Your task to perform on an android device: change timer sound Image 0: 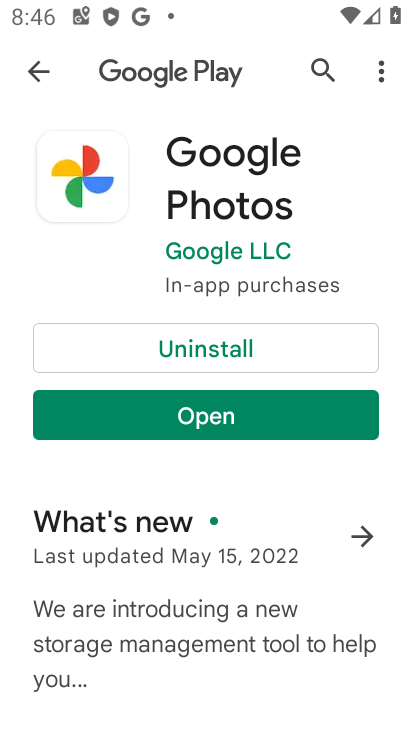
Step 0: click (252, 424)
Your task to perform on an android device: change timer sound Image 1: 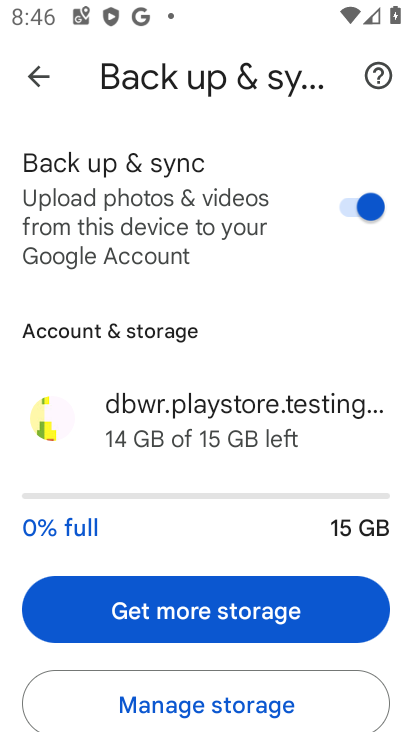
Step 1: press home button
Your task to perform on an android device: change timer sound Image 2: 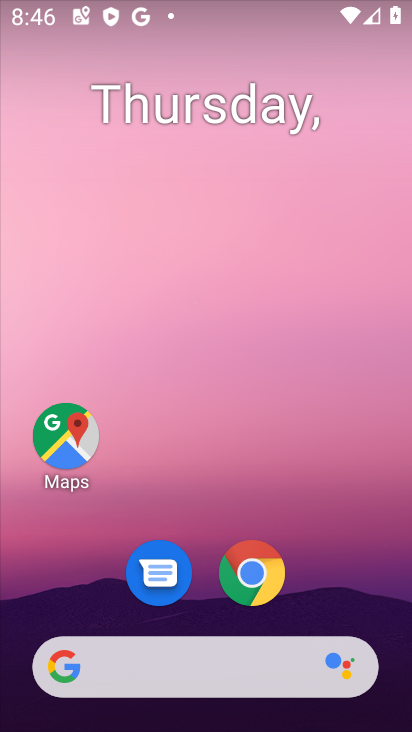
Step 2: drag from (314, 563) to (318, 148)
Your task to perform on an android device: change timer sound Image 3: 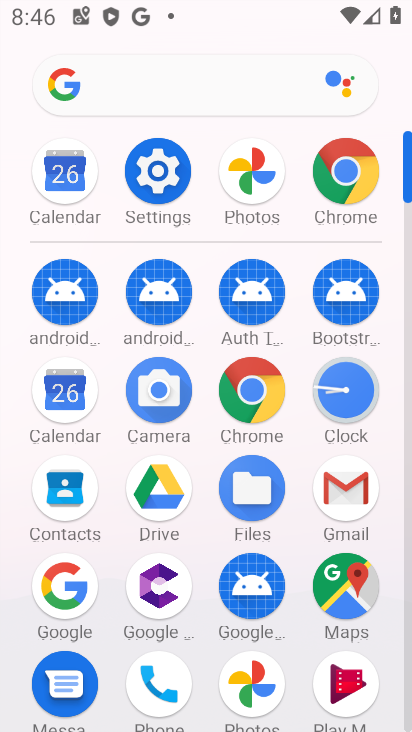
Step 3: click (326, 392)
Your task to perform on an android device: change timer sound Image 4: 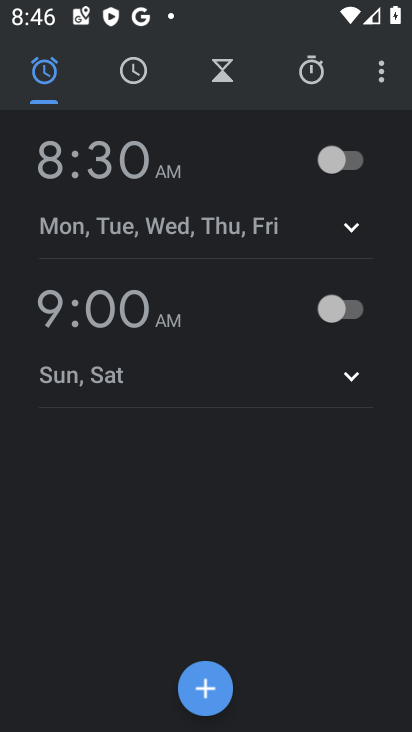
Step 4: drag from (370, 82) to (257, 149)
Your task to perform on an android device: change timer sound Image 5: 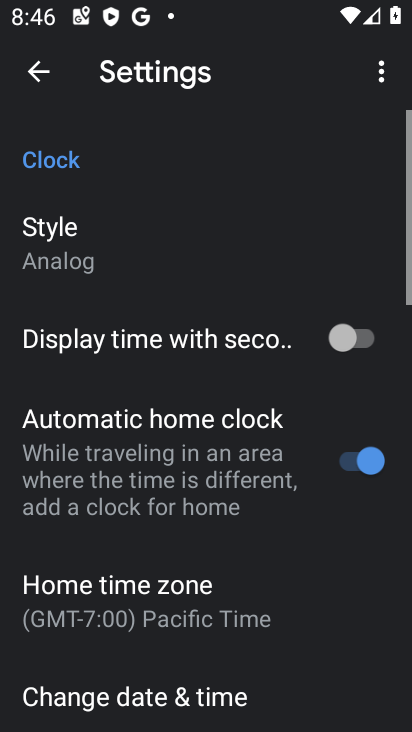
Step 5: drag from (208, 633) to (198, 315)
Your task to perform on an android device: change timer sound Image 6: 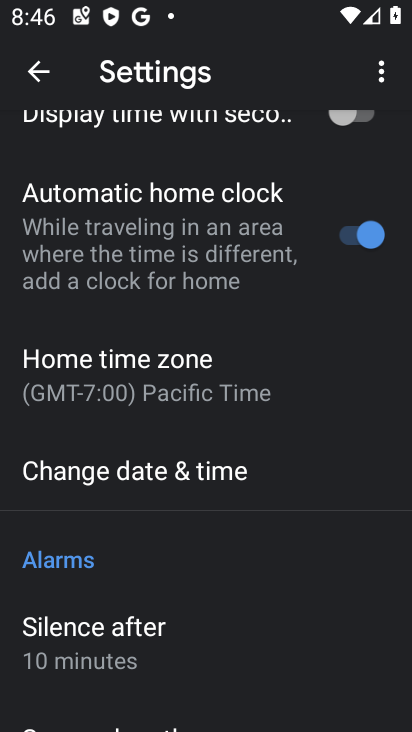
Step 6: drag from (207, 634) to (222, 285)
Your task to perform on an android device: change timer sound Image 7: 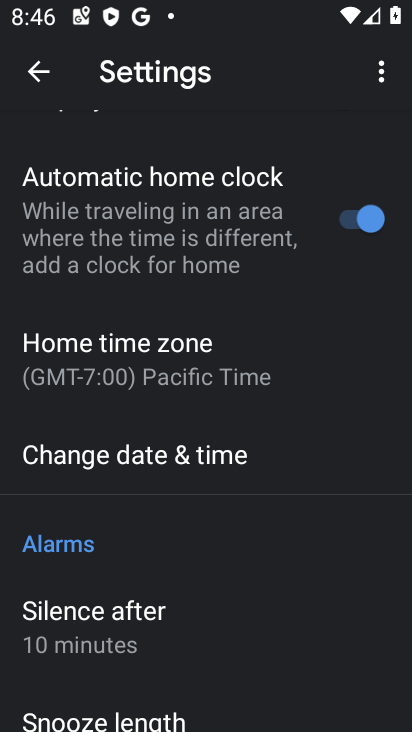
Step 7: drag from (181, 638) to (193, 238)
Your task to perform on an android device: change timer sound Image 8: 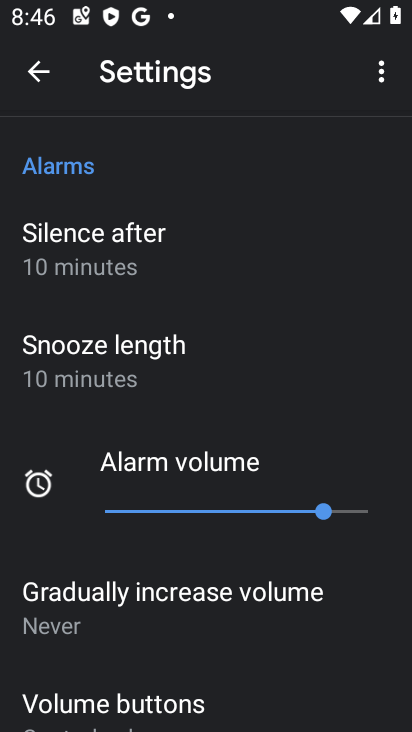
Step 8: drag from (203, 662) to (203, 312)
Your task to perform on an android device: change timer sound Image 9: 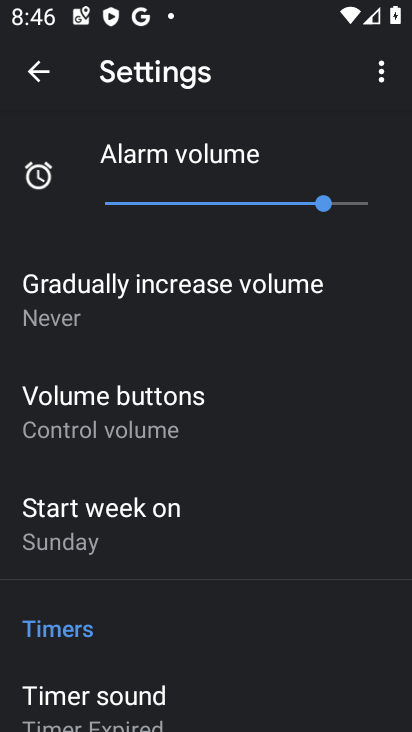
Step 9: drag from (228, 647) to (207, 343)
Your task to perform on an android device: change timer sound Image 10: 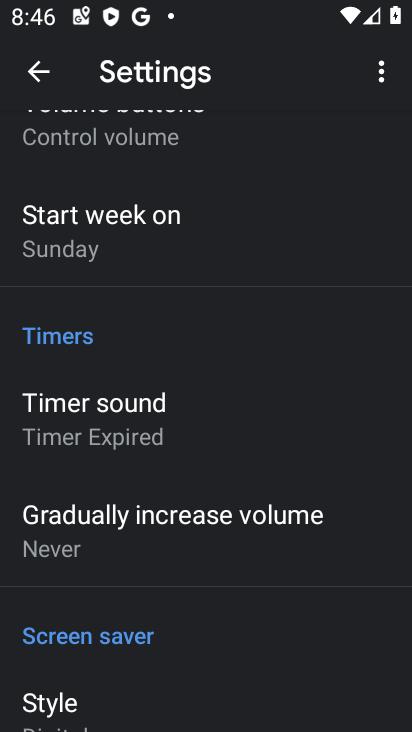
Step 10: click (142, 424)
Your task to perform on an android device: change timer sound Image 11: 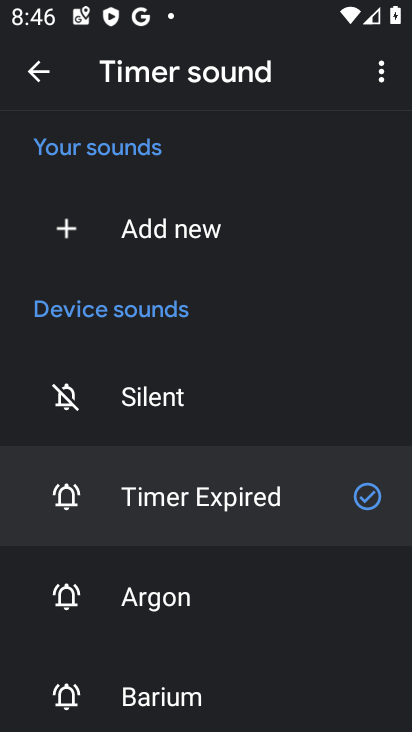
Step 11: click (180, 600)
Your task to perform on an android device: change timer sound Image 12: 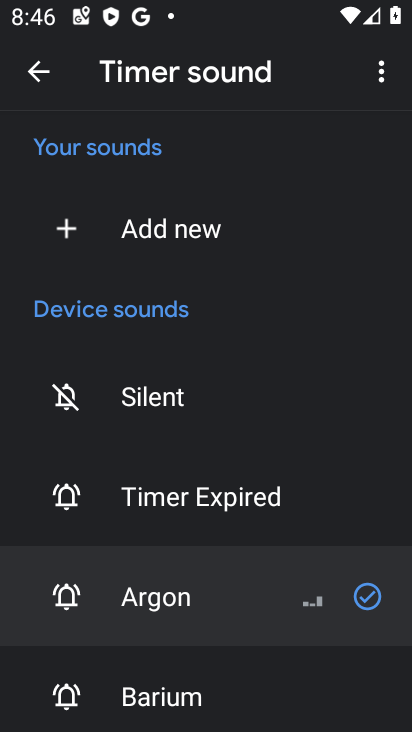
Step 12: task complete